Your task to perform on an android device: Go to Yahoo.com Image 0: 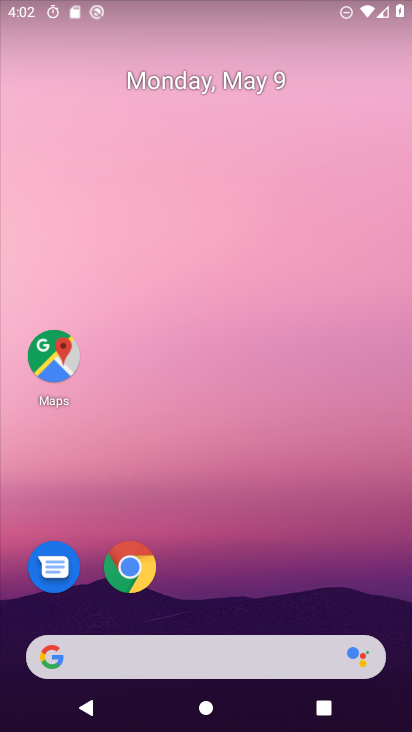
Step 0: click (138, 567)
Your task to perform on an android device: Go to Yahoo.com Image 1: 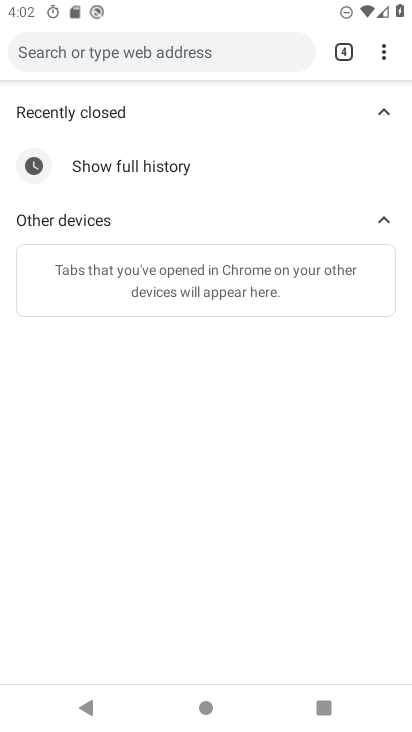
Step 1: click (339, 49)
Your task to perform on an android device: Go to Yahoo.com Image 2: 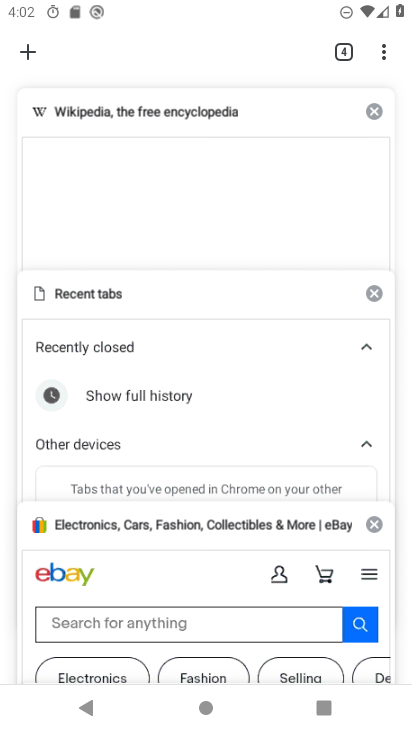
Step 2: click (25, 51)
Your task to perform on an android device: Go to Yahoo.com Image 3: 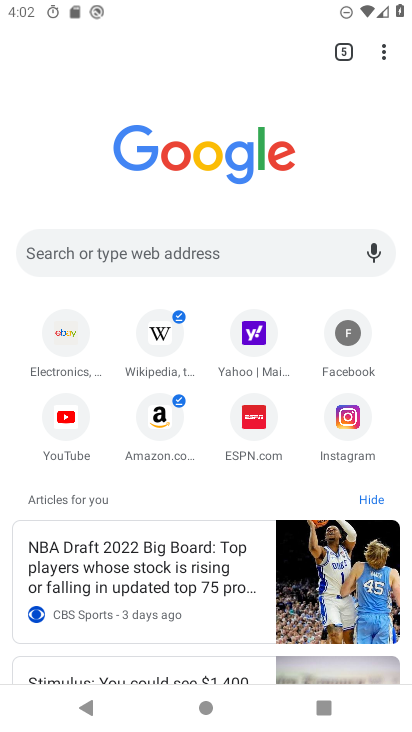
Step 3: click (248, 326)
Your task to perform on an android device: Go to Yahoo.com Image 4: 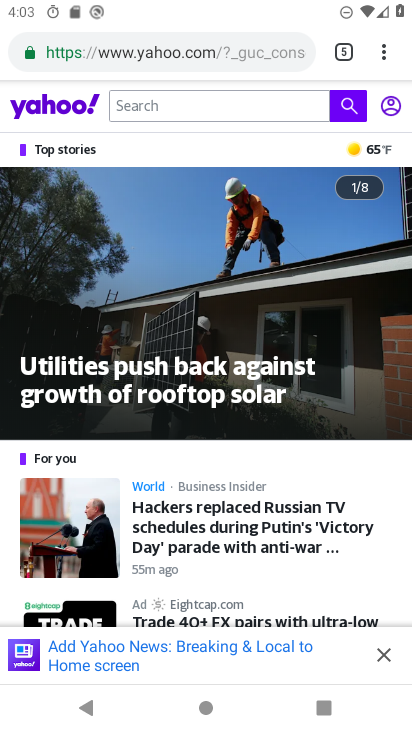
Step 4: task complete